Your task to perform on an android device: empty trash in google photos Image 0: 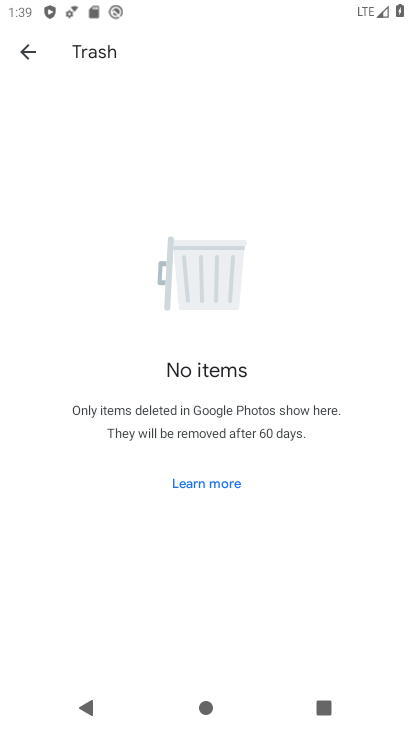
Step 0: press home button
Your task to perform on an android device: empty trash in google photos Image 1: 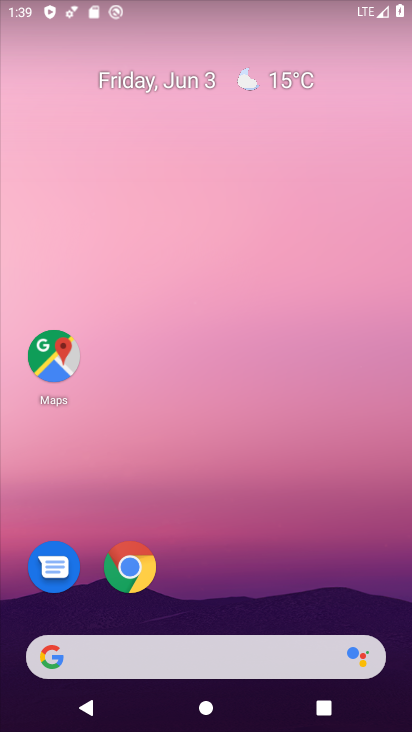
Step 1: drag from (234, 634) to (282, 123)
Your task to perform on an android device: empty trash in google photos Image 2: 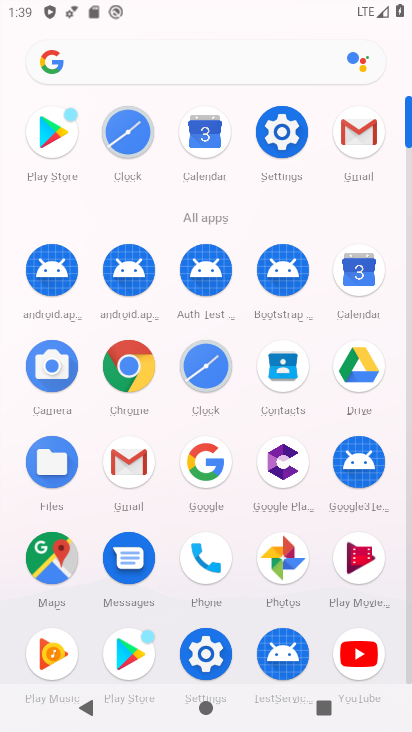
Step 2: click (297, 557)
Your task to perform on an android device: empty trash in google photos Image 3: 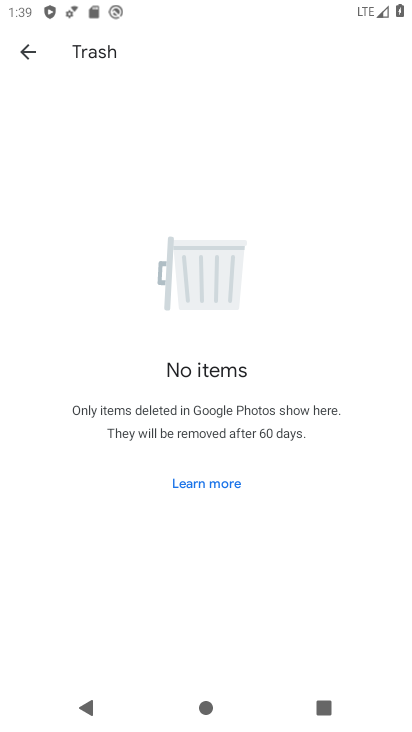
Step 3: click (28, 53)
Your task to perform on an android device: empty trash in google photos Image 4: 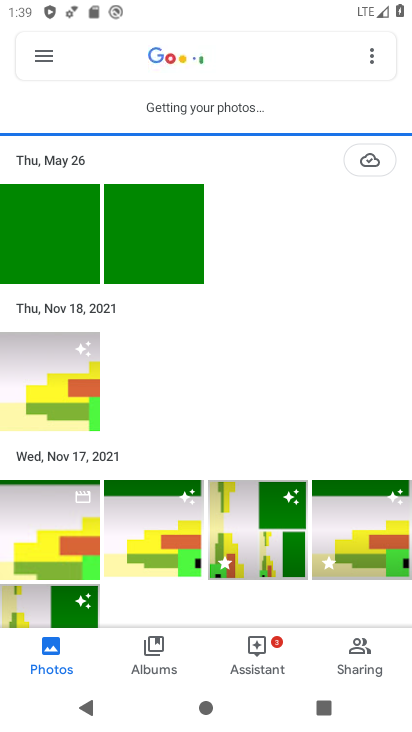
Step 4: task complete